Your task to perform on an android device: Do I have any events tomorrow? Image 0: 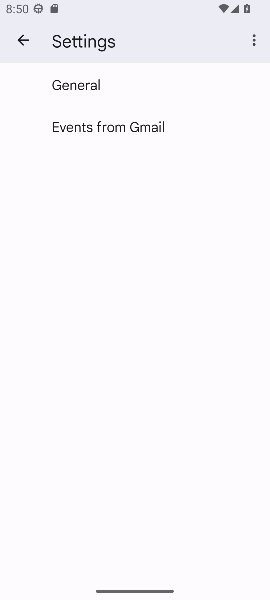
Step 0: press home button
Your task to perform on an android device: Do I have any events tomorrow? Image 1: 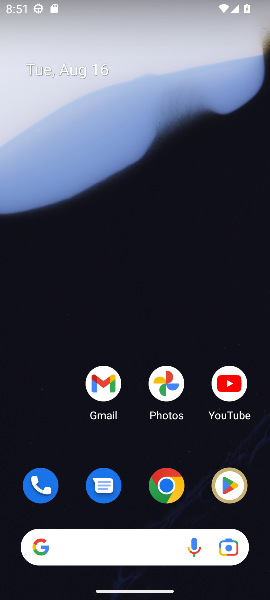
Step 1: drag from (136, 426) to (99, 161)
Your task to perform on an android device: Do I have any events tomorrow? Image 2: 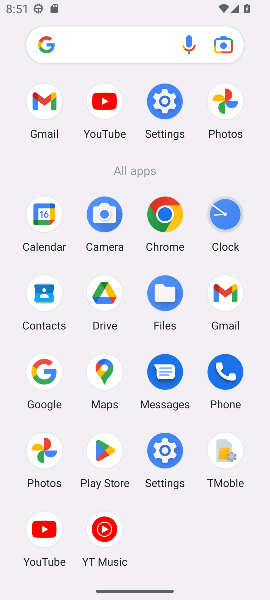
Step 2: click (39, 208)
Your task to perform on an android device: Do I have any events tomorrow? Image 3: 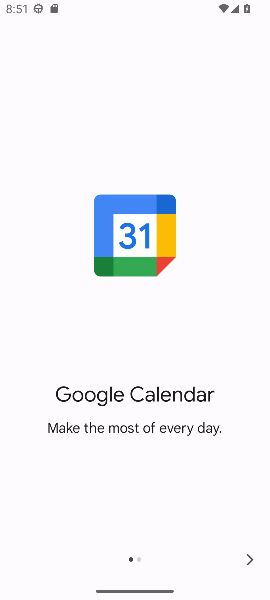
Step 3: click (249, 563)
Your task to perform on an android device: Do I have any events tomorrow? Image 4: 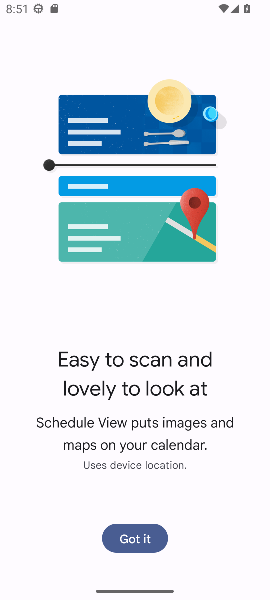
Step 4: click (148, 535)
Your task to perform on an android device: Do I have any events tomorrow? Image 5: 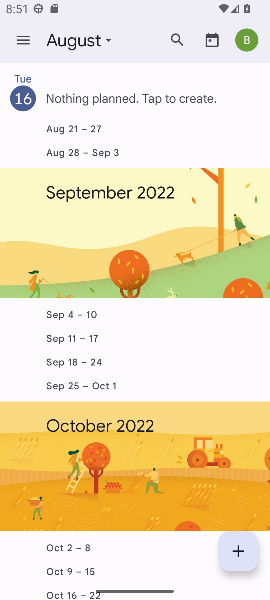
Step 5: click (29, 32)
Your task to perform on an android device: Do I have any events tomorrow? Image 6: 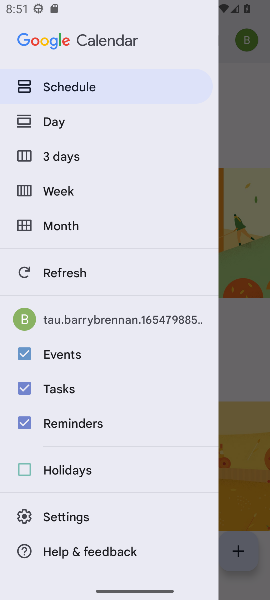
Step 6: click (56, 126)
Your task to perform on an android device: Do I have any events tomorrow? Image 7: 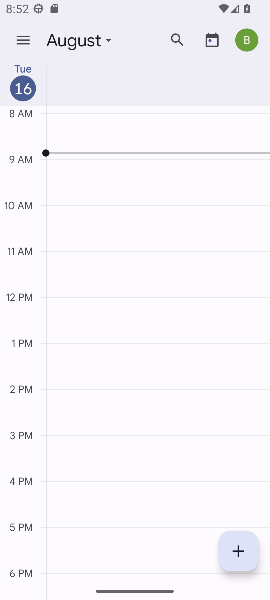
Step 7: click (108, 38)
Your task to perform on an android device: Do I have any events tomorrow? Image 8: 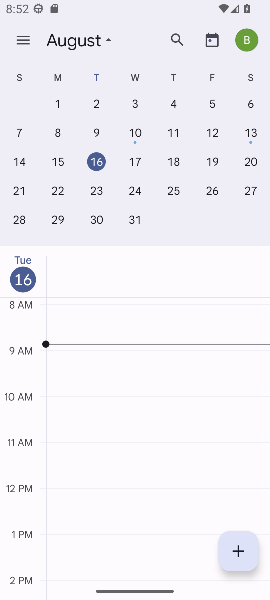
Step 8: click (131, 160)
Your task to perform on an android device: Do I have any events tomorrow? Image 9: 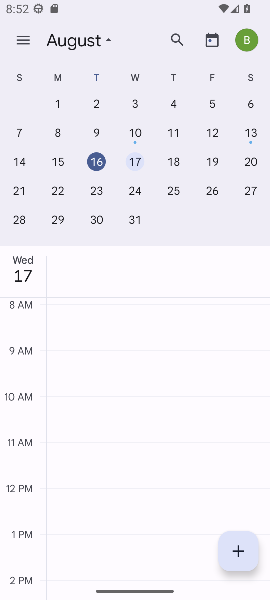
Step 9: task complete